Your task to perform on an android device: Search for vegetarian restaurants on Maps Image 0: 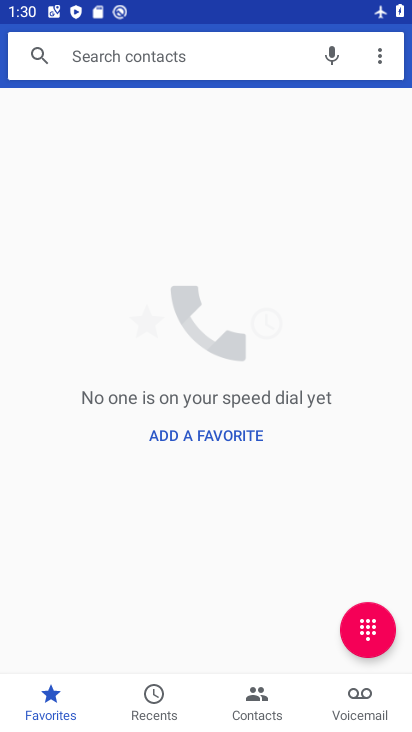
Step 0: press home button
Your task to perform on an android device: Search for vegetarian restaurants on Maps Image 1: 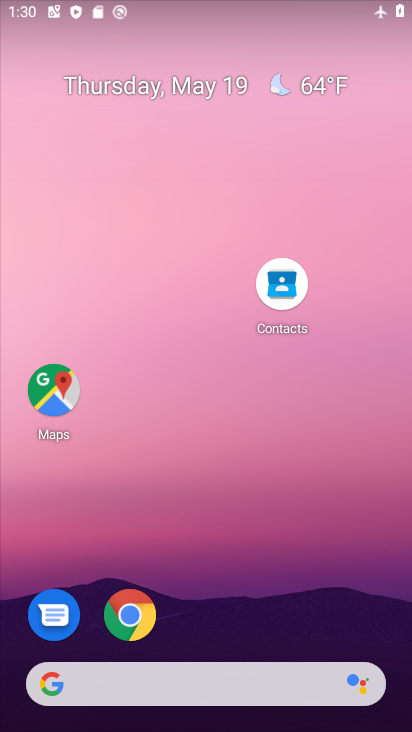
Step 1: drag from (200, 665) to (251, 144)
Your task to perform on an android device: Search for vegetarian restaurants on Maps Image 2: 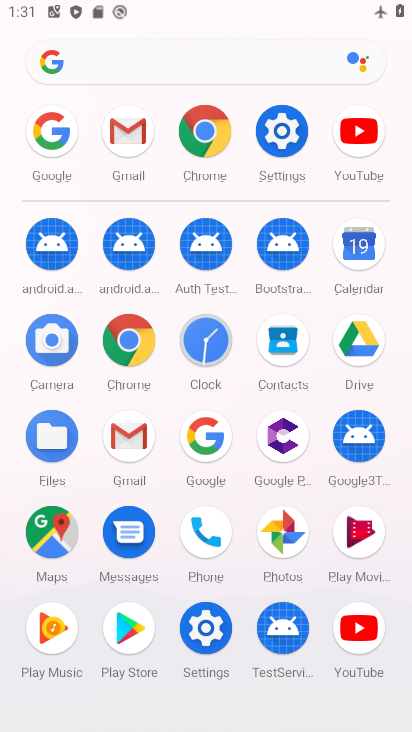
Step 2: click (68, 545)
Your task to perform on an android device: Search for vegetarian restaurants on Maps Image 3: 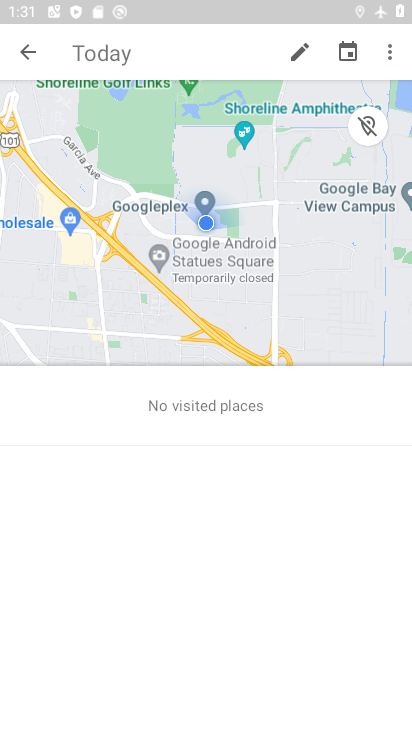
Step 3: click (15, 49)
Your task to perform on an android device: Search for vegetarian restaurants on Maps Image 4: 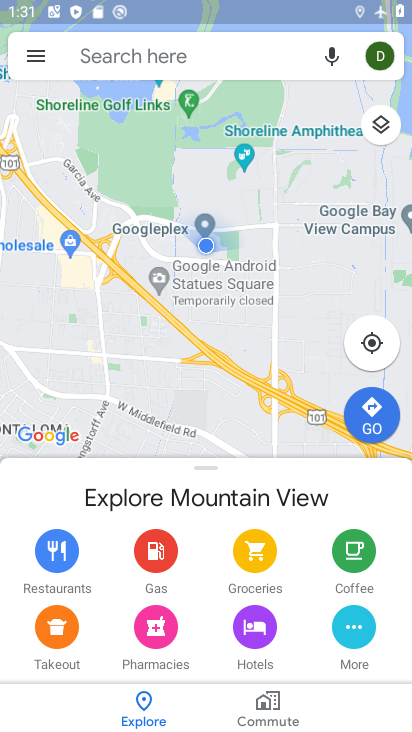
Step 4: click (133, 49)
Your task to perform on an android device: Search for vegetarian restaurants on Maps Image 5: 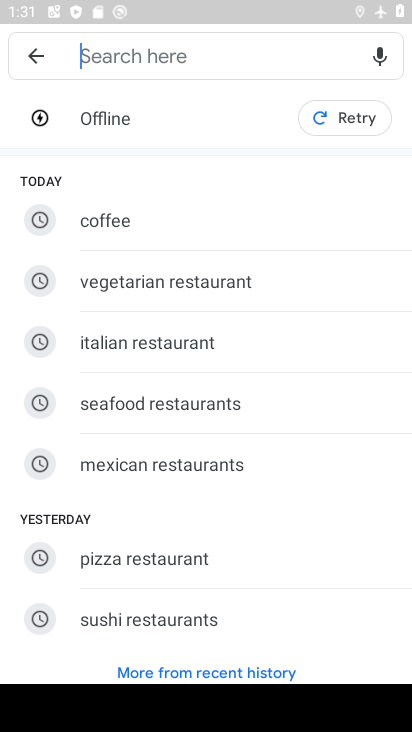
Step 5: type "sikandar"
Your task to perform on an android device: Search for vegetarian restaurants on Maps Image 6: 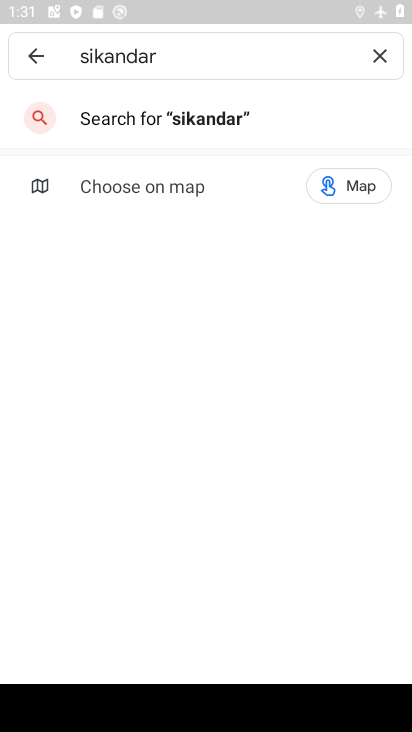
Step 6: click (263, 123)
Your task to perform on an android device: Search for vegetarian restaurants on Maps Image 7: 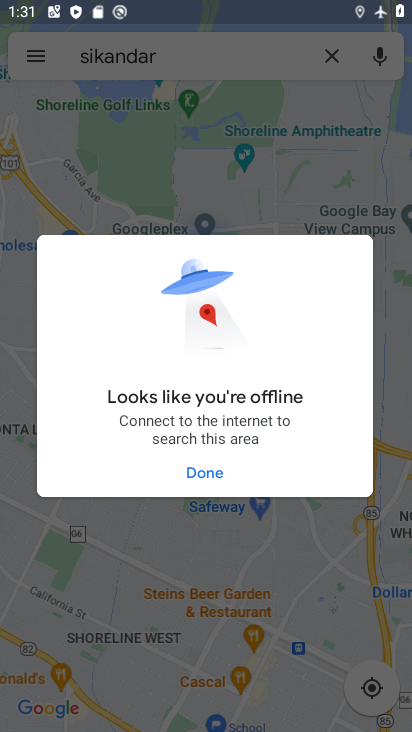
Step 7: task complete